Your task to perform on an android device: Open settings on Google Maps Image 0: 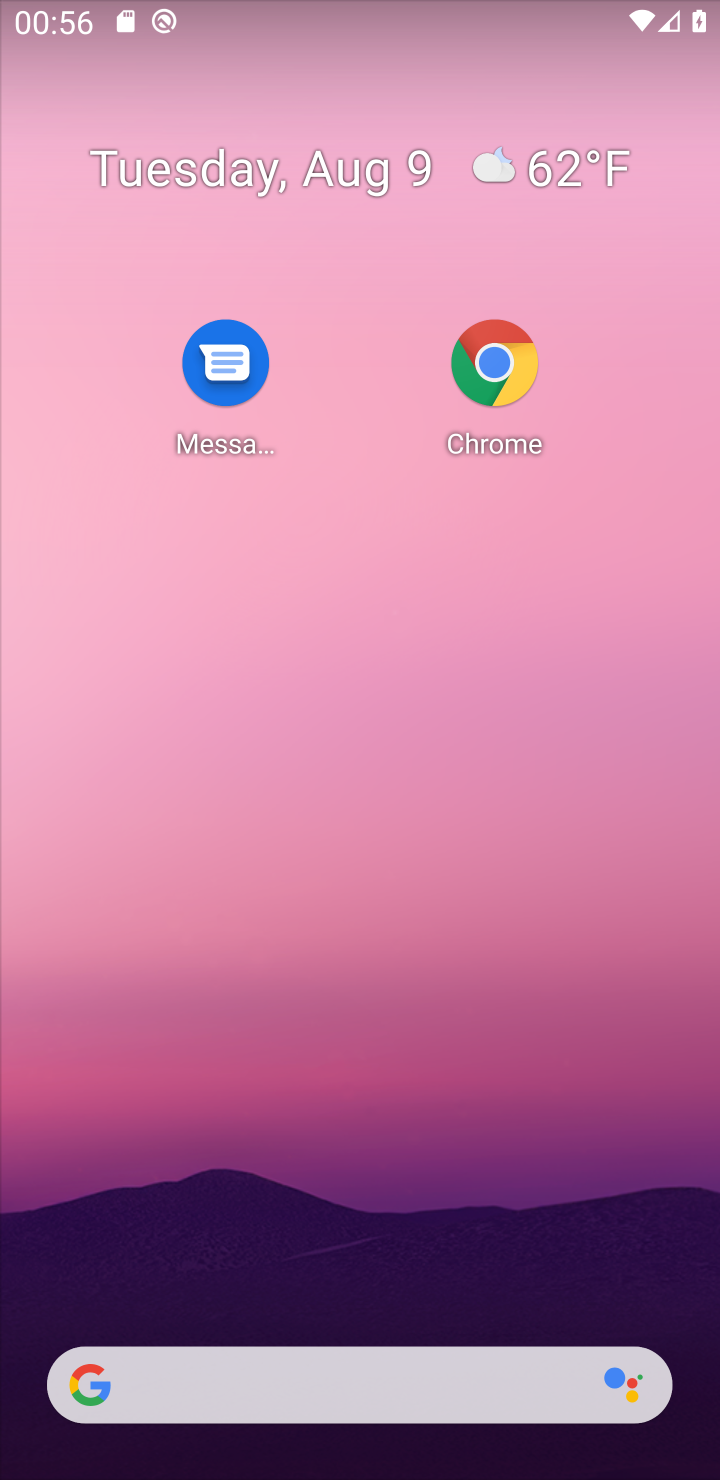
Step 0: drag from (503, 1157) to (635, 465)
Your task to perform on an android device: Open settings on Google Maps Image 1: 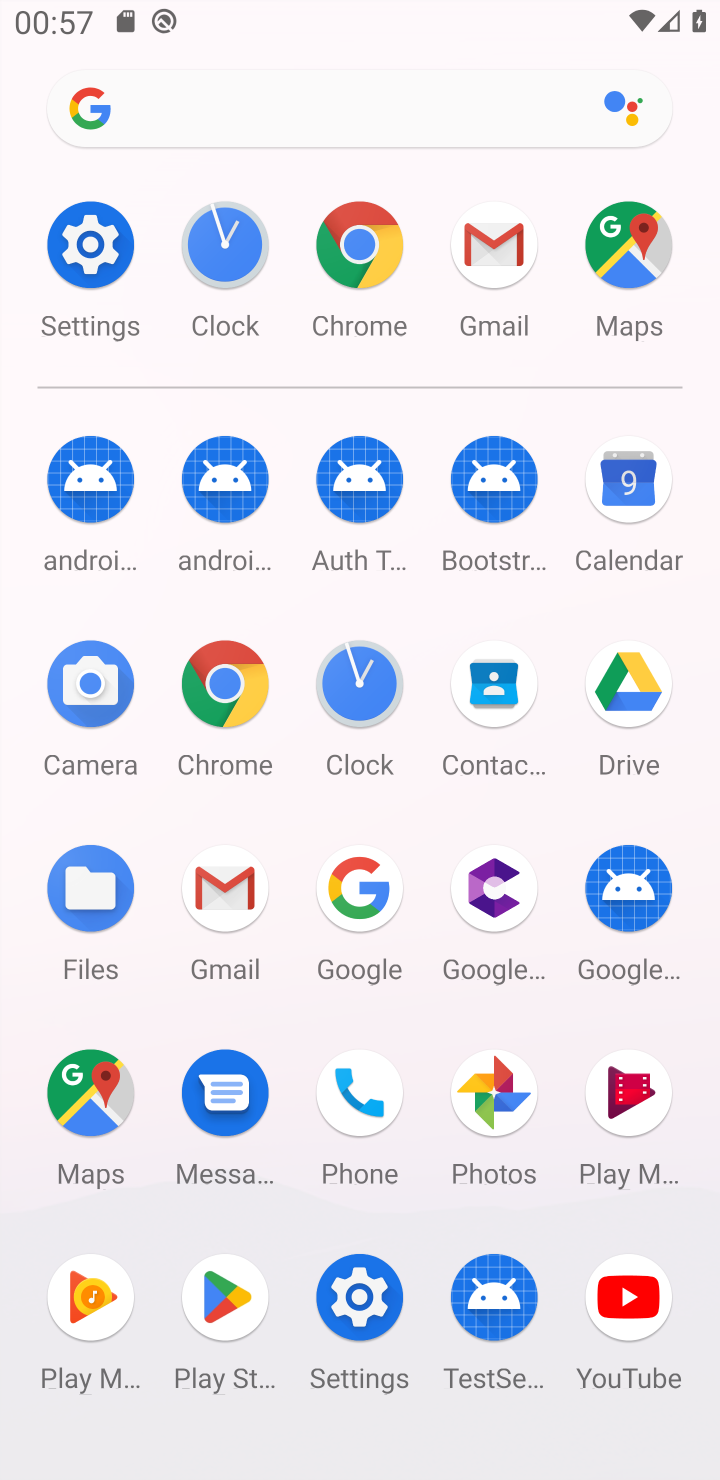
Step 1: click (621, 212)
Your task to perform on an android device: Open settings on Google Maps Image 2: 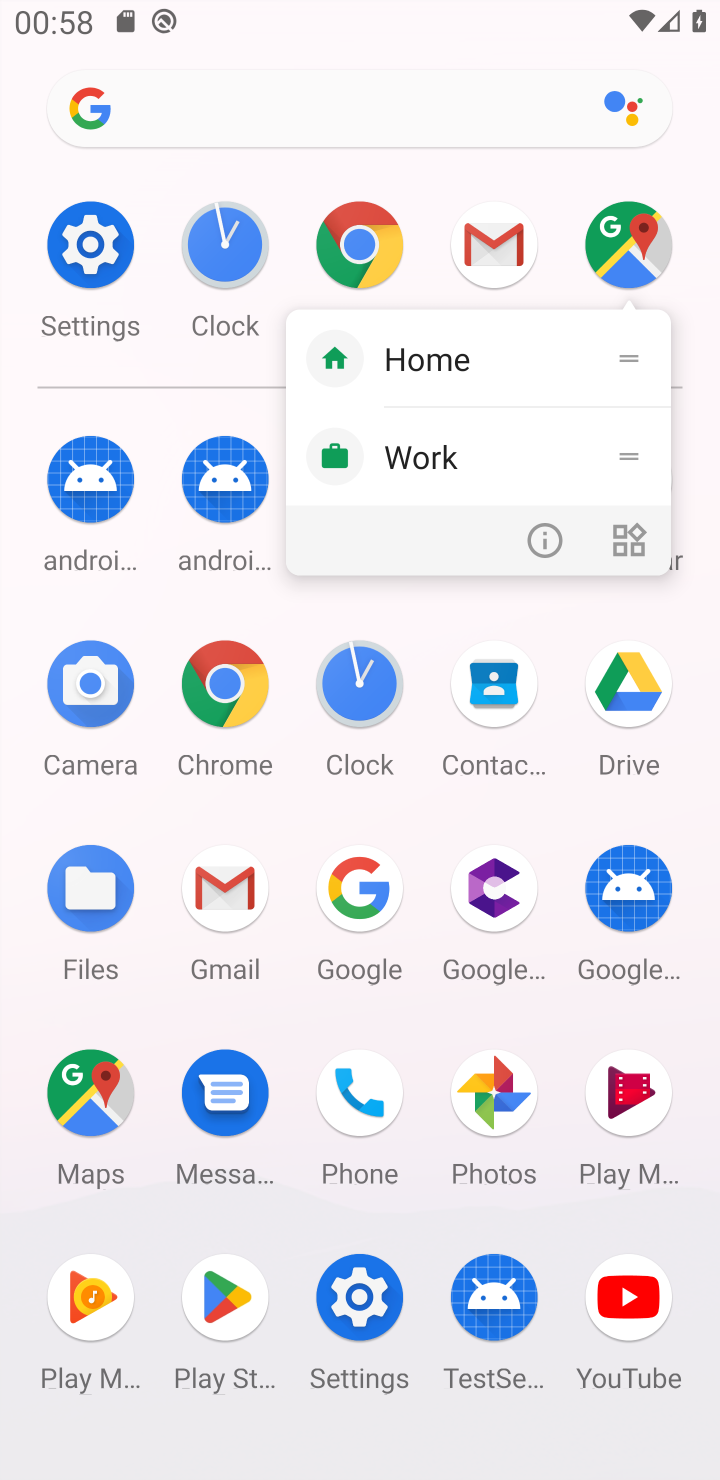
Step 2: click (617, 236)
Your task to perform on an android device: Open settings on Google Maps Image 3: 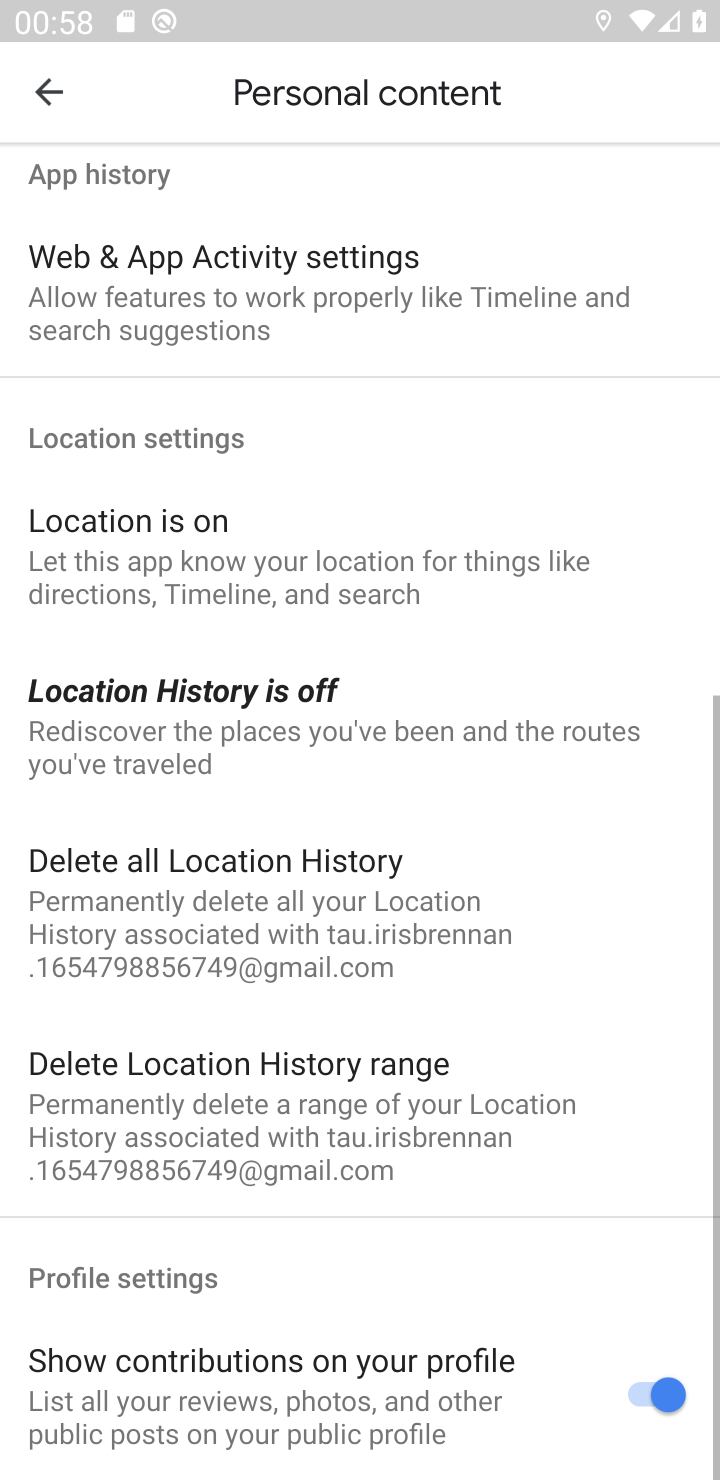
Step 3: task complete